Your task to perform on an android device: change notifications settings Image 0: 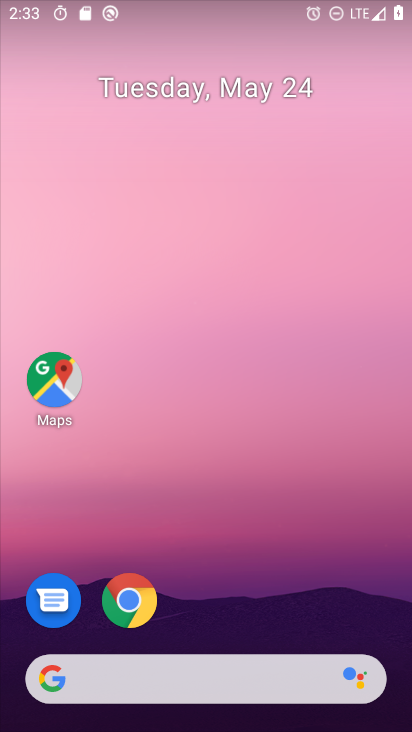
Step 0: drag from (323, 565) to (351, 139)
Your task to perform on an android device: change notifications settings Image 1: 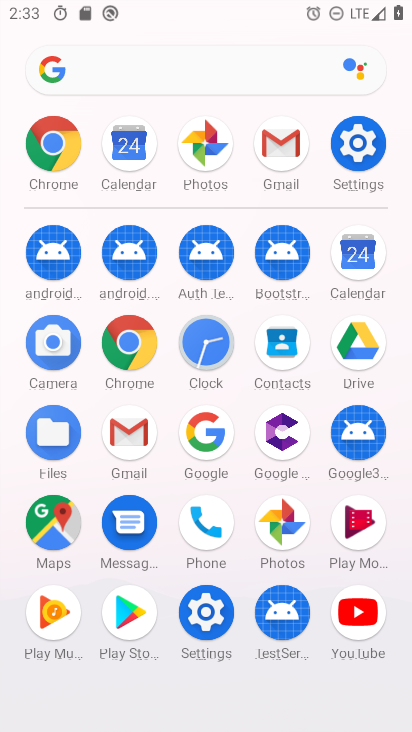
Step 1: click (347, 144)
Your task to perform on an android device: change notifications settings Image 2: 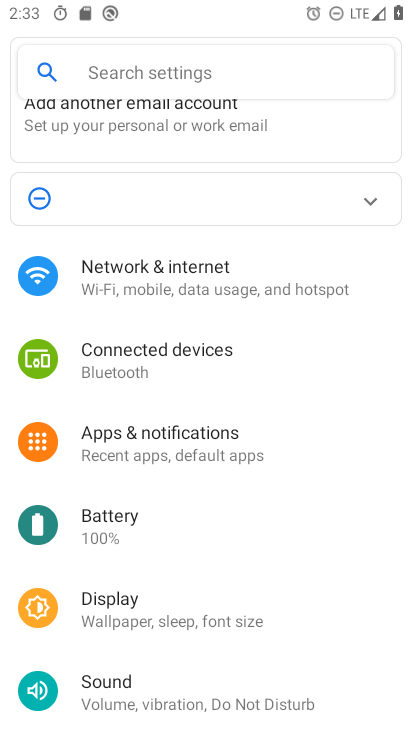
Step 2: click (184, 450)
Your task to perform on an android device: change notifications settings Image 3: 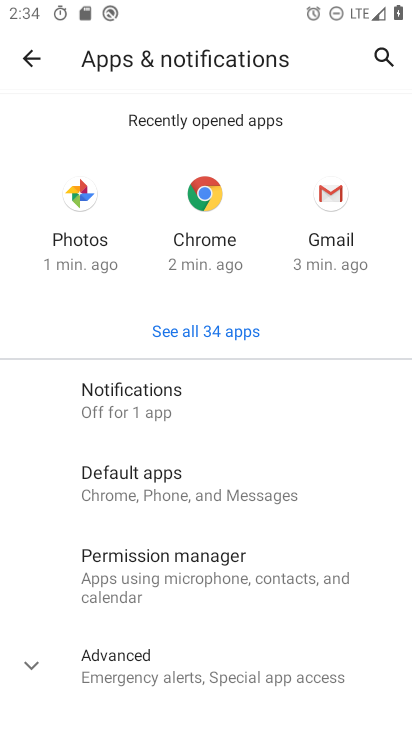
Step 3: click (157, 403)
Your task to perform on an android device: change notifications settings Image 4: 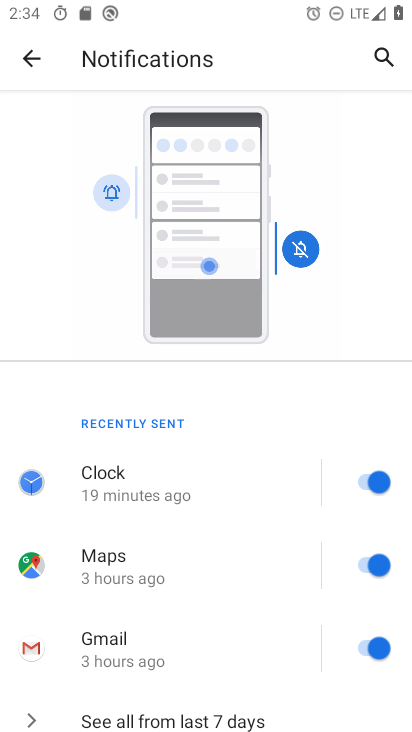
Step 4: drag from (169, 614) to (266, 150)
Your task to perform on an android device: change notifications settings Image 5: 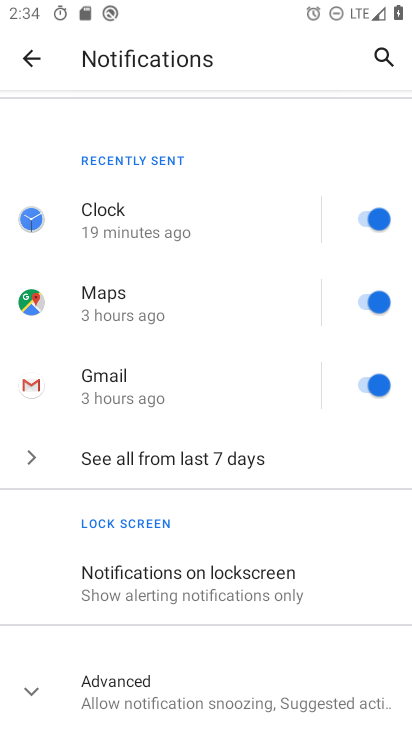
Step 5: click (205, 676)
Your task to perform on an android device: change notifications settings Image 6: 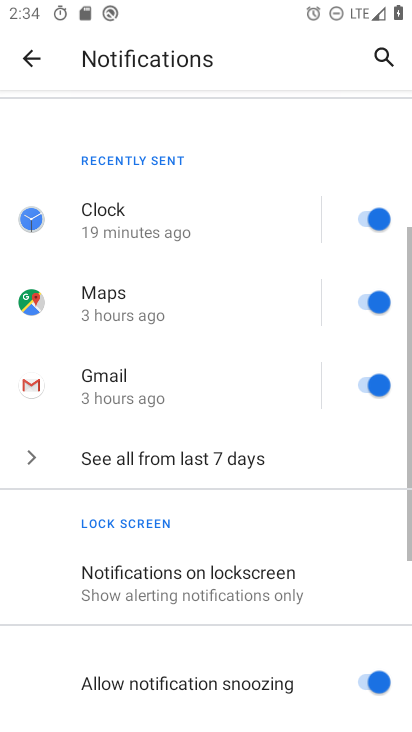
Step 6: drag from (209, 661) to (290, 274)
Your task to perform on an android device: change notifications settings Image 7: 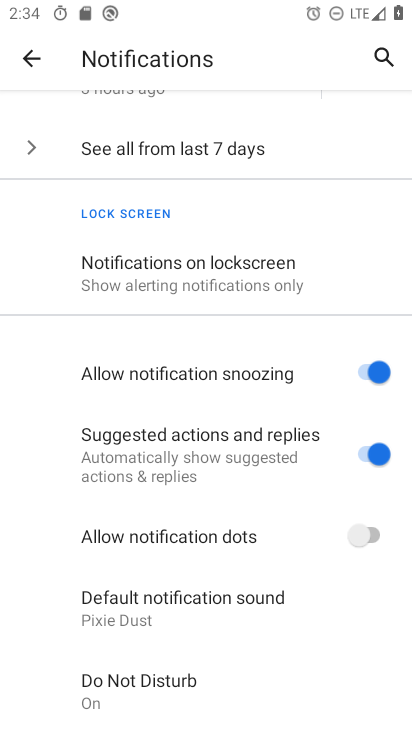
Step 7: click (367, 534)
Your task to perform on an android device: change notifications settings Image 8: 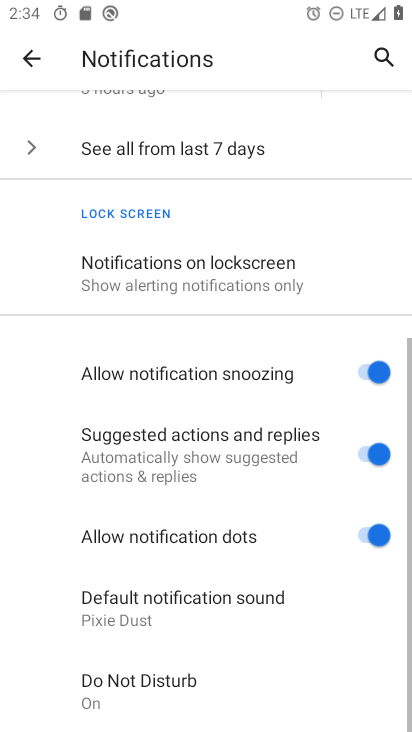
Step 8: task complete